Your task to perform on an android device: Open Youtube and go to the subscriptions tab Image 0: 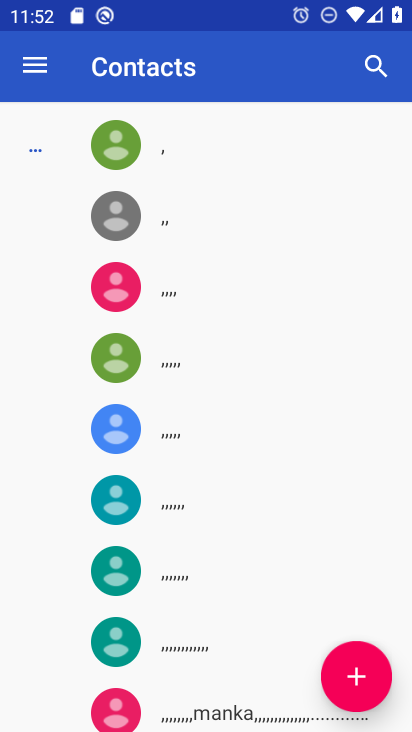
Step 0: press home button
Your task to perform on an android device: Open Youtube and go to the subscriptions tab Image 1: 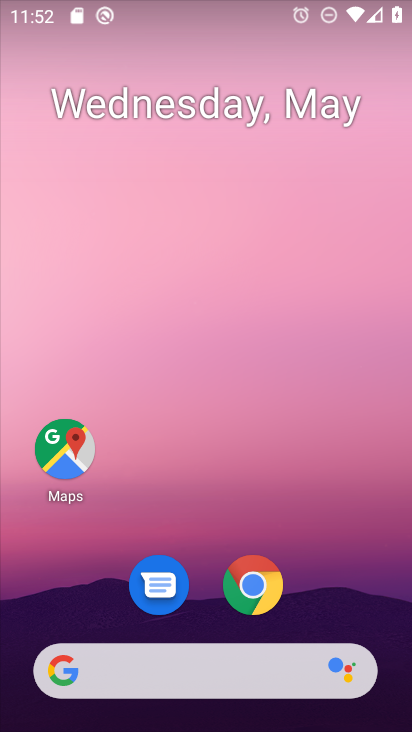
Step 1: drag from (224, 512) to (217, 27)
Your task to perform on an android device: Open Youtube and go to the subscriptions tab Image 2: 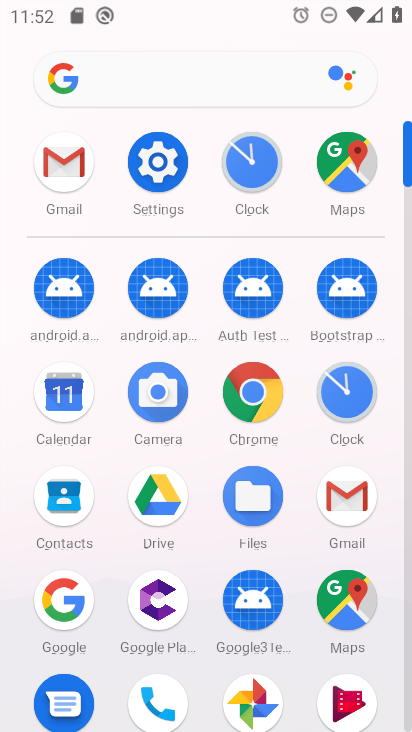
Step 2: drag from (216, 546) to (225, 211)
Your task to perform on an android device: Open Youtube and go to the subscriptions tab Image 3: 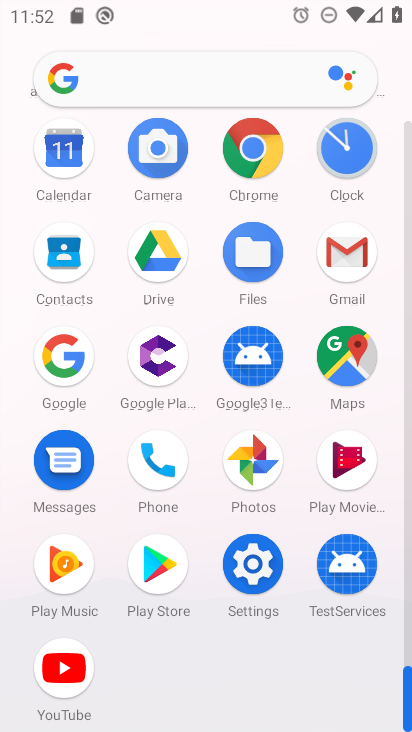
Step 3: click (76, 655)
Your task to perform on an android device: Open Youtube and go to the subscriptions tab Image 4: 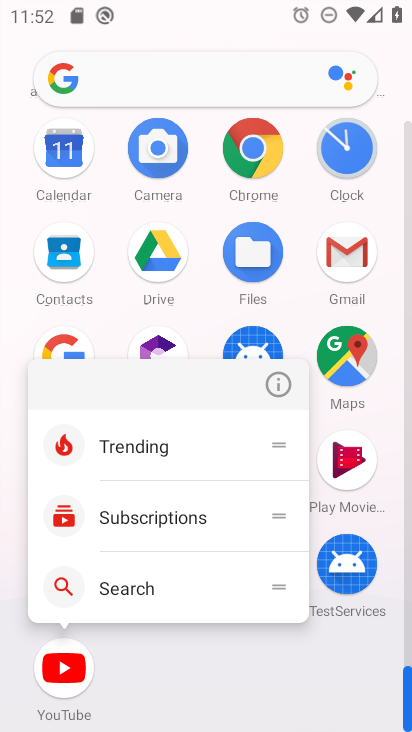
Step 4: click (76, 655)
Your task to perform on an android device: Open Youtube and go to the subscriptions tab Image 5: 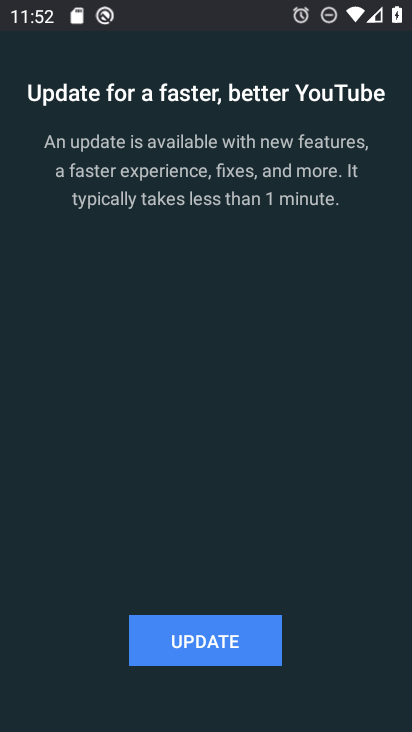
Step 5: click (185, 641)
Your task to perform on an android device: Open Youtube and go to the subscriptions tab Image 6: 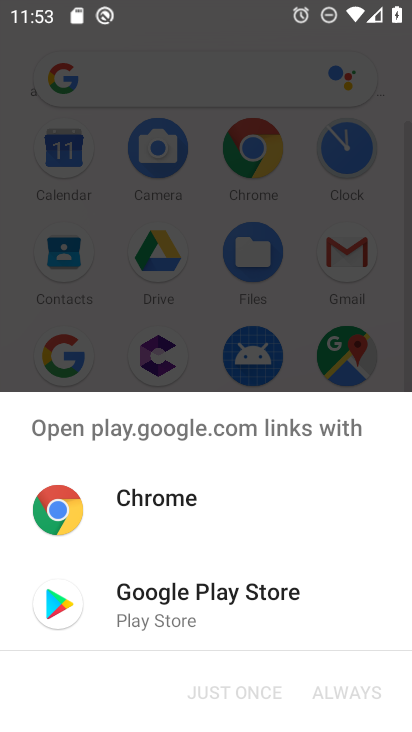
Step 6: click (174, 594)
Your task to perform on an android device: Open Youtube and go to the subscriptions tab Image 7: 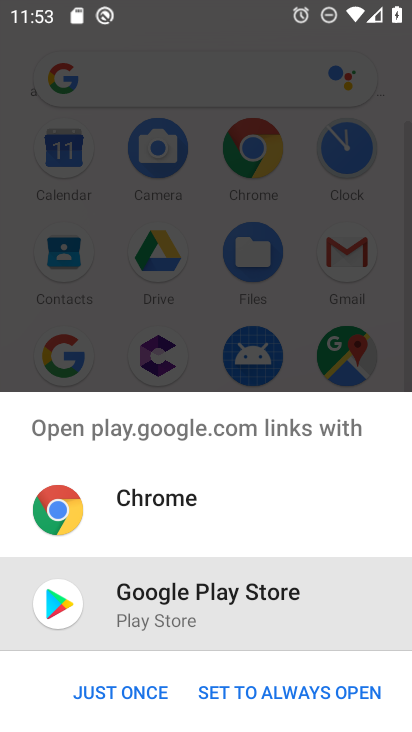
Step 7: click (134, 689)
Your task to perform on an android device: Open Youtube and go to the subscriptions tab Image 8: 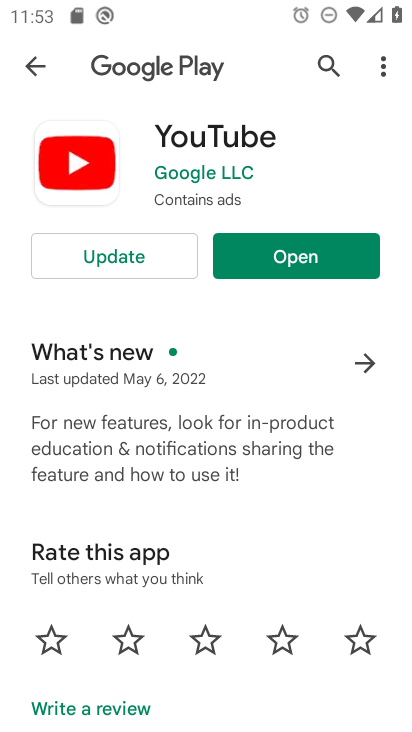
Step 8: click (152, 258)
Your task to perform on an android device: Open Youtube and go to the subscriptions tab Image 9: 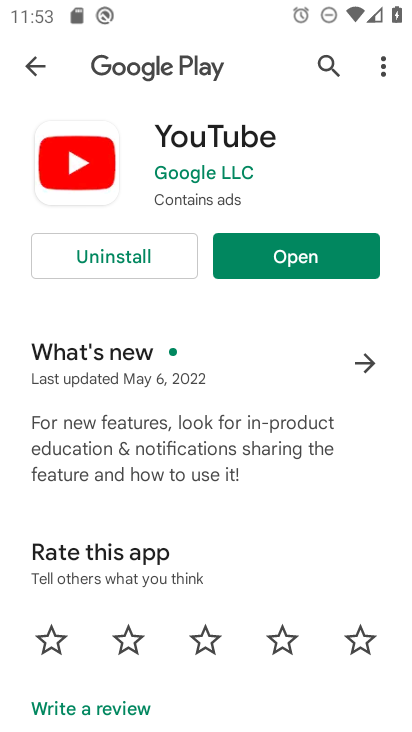
Step 9: click (356, 259)
Your task to perform on an android device: Open Youtube and go to the subscriptions tab Image 10: 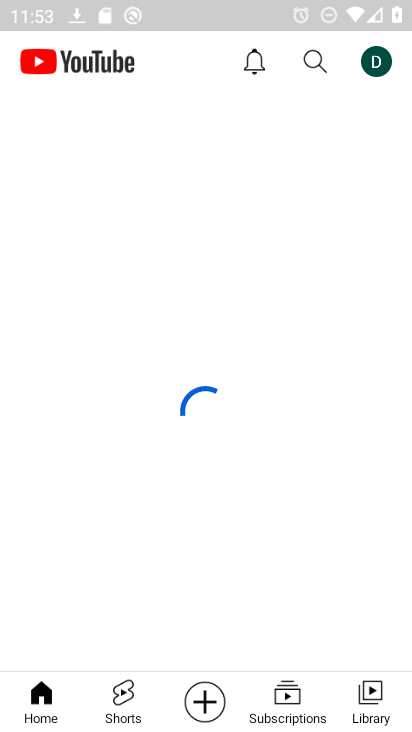
Step 10: click (294, 696)
Your task to perform on an android device: Open Youtube and go to the subscriptions tab Image 11: 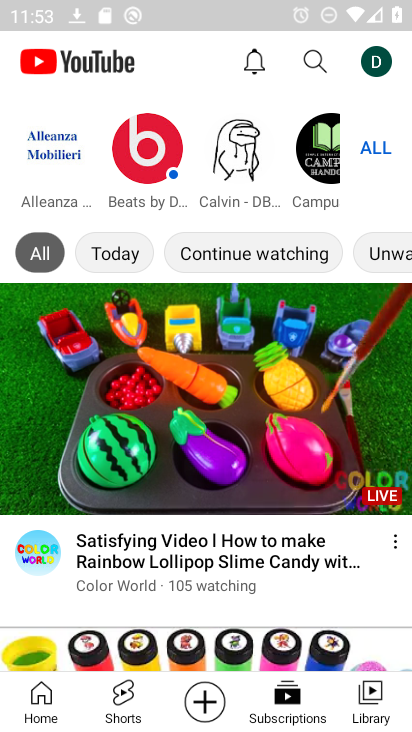
Step 11: task complete